Your task to perform on an android device: Open maps Image 0: 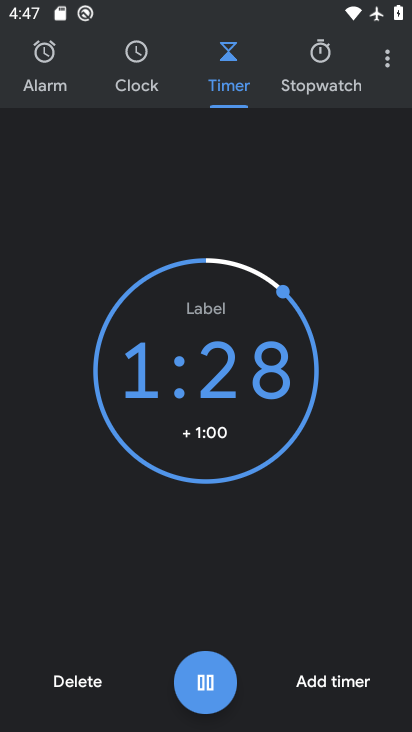
Step 0: press home button
Your task to perform on an android device: Open maps Image 1: 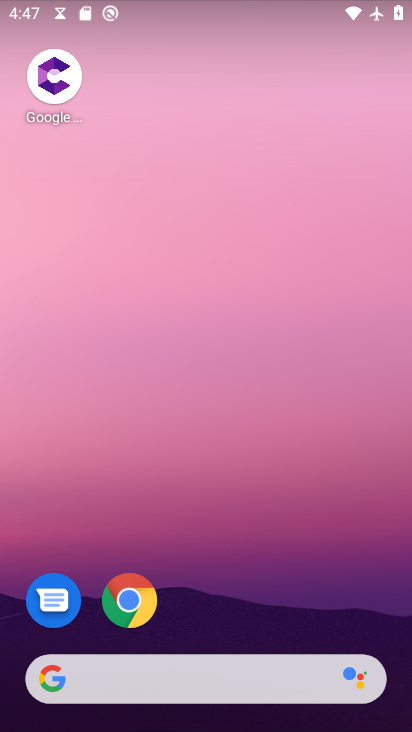
Step 1: drag from (225, 545) to (323, 37)
Your task to perform on an android device: Open maps Image 2: 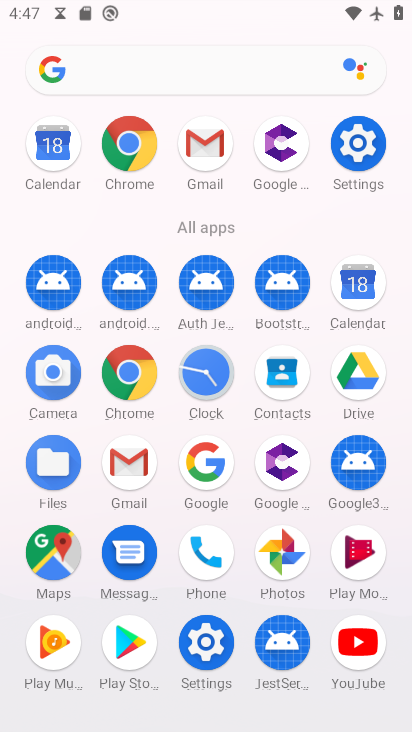
Step 2: click (39, 543)
Your task to perform on an android device: Open maps Image 3: 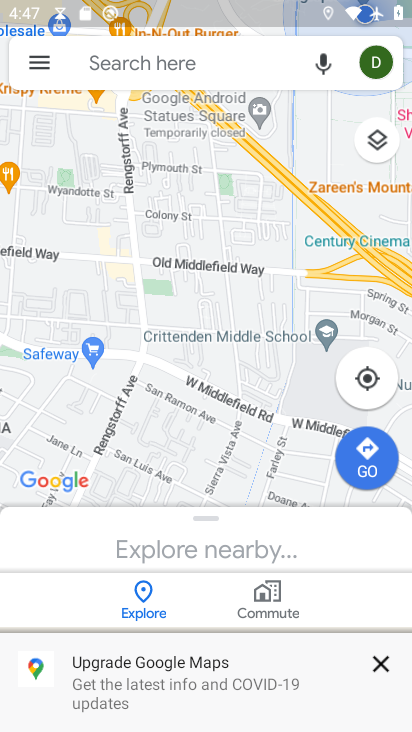
Step 3: task complete